Your task to perform on an android device: Open Amazon Image 0: 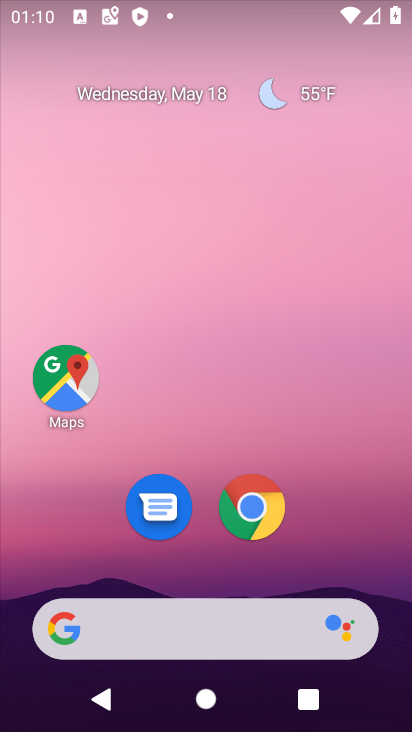
Step 0: click (247, 505)
Your task to perform on an android device: Open Amazon Image 1: 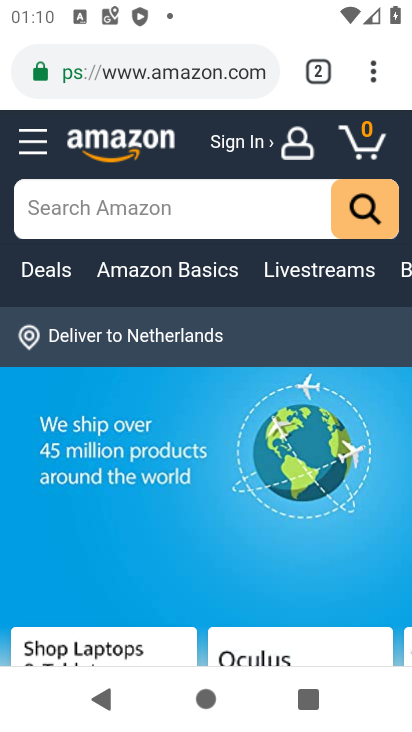
Step 1: task complete